Your task to perform on an android device: Go to battery settings Image 0: 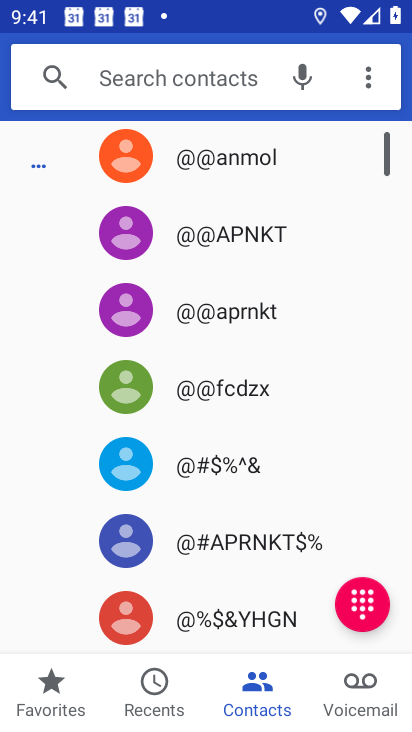
Step 0: press home button
Your task to perform on an android device: Go to battery settings Image 1: 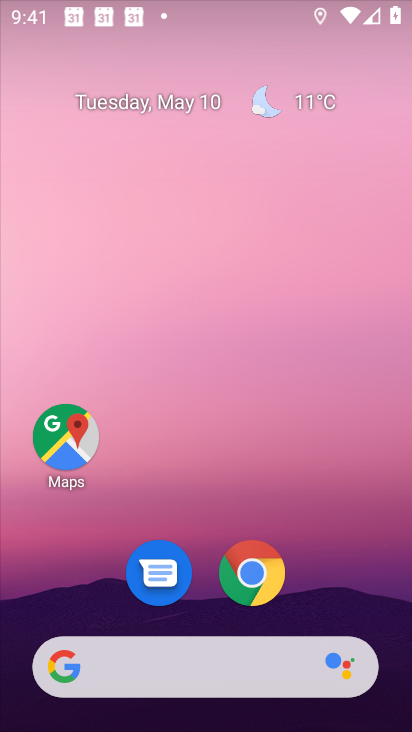
Step 1: drag from (248, 443) to (321, 131)
Your task to perform on an android device: Go to battery settings Image 2: 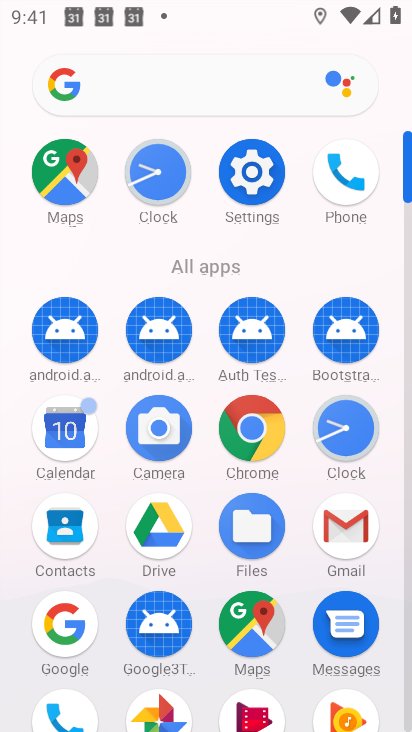
Step 2: click (263, 186)
Your task to perform on an android device: Go to battery settings Image 3: 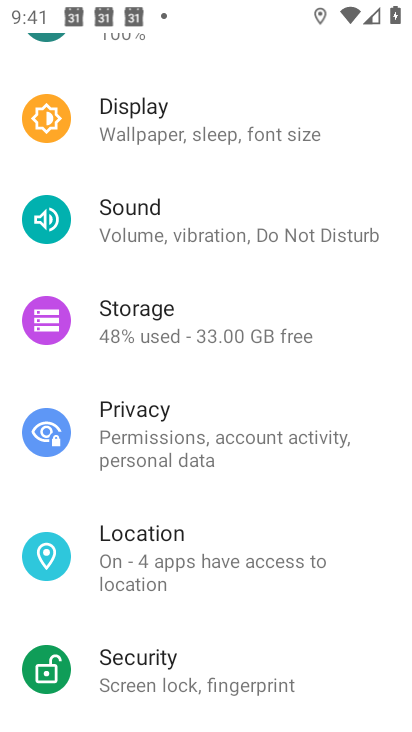
Step 3: drag from (208, 171) to (217, 519)
Your task to perform on an android device: Go to battery settings Image 4: 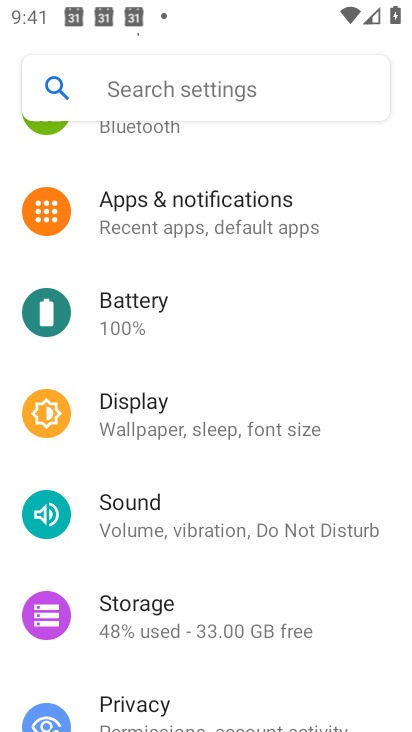
Step 4: click (175, 332)
Your task to perform on an android device: Go to battery settings Image 5: 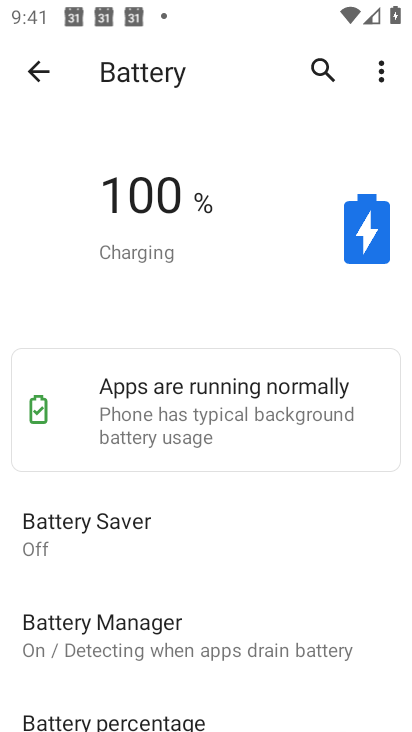
Step 5: task complete